Your task to perform on an android device: turn on wifi Image 0: 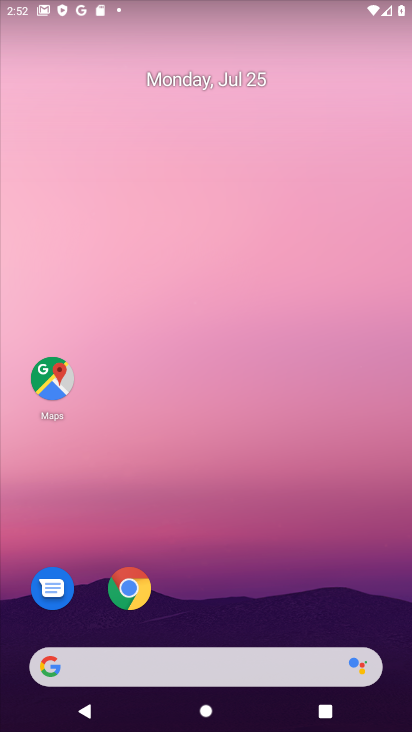
Step 0: drag from (405, 707) to (335, 154)
Your task to perform on an android device: turn on wifi Image 1: 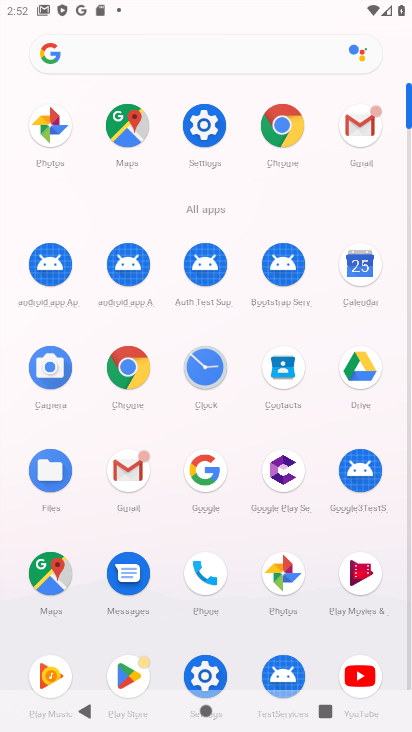
Step 1: click (213, 128)
Your task to perform on an android device: turn on wifi Image 2: 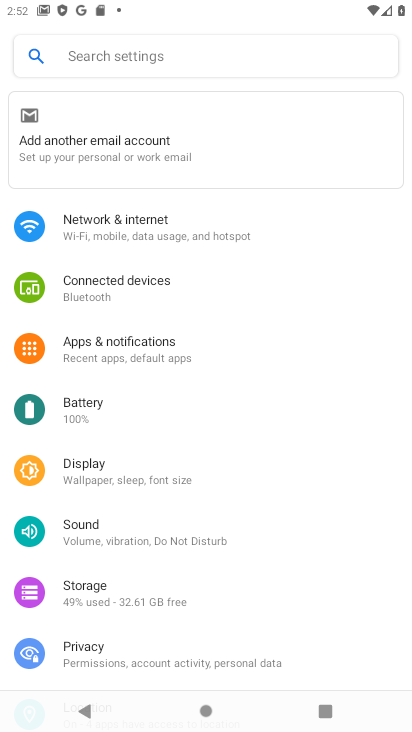
Step 2: click (87, 220)
Your task to perform on an android device: turn on wifi Image 3: 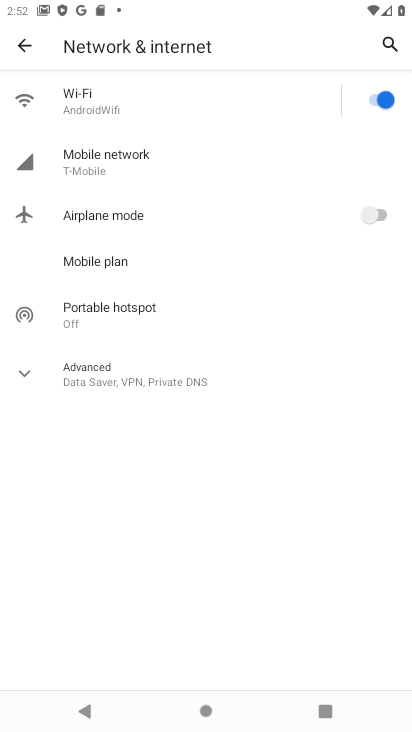
Step 3: task complete